Your task to perform on an android device: Open calendar and show me the second week of next month Image 0: 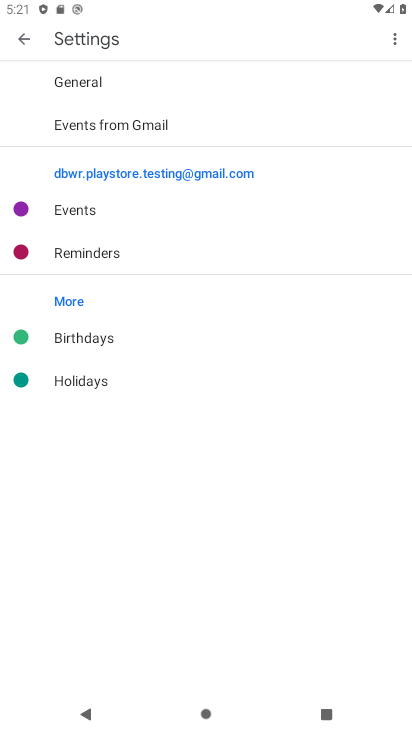
Step 0: press home button
Your task to perform on an android device: Open calendar and show me the second week of next month Image 1: 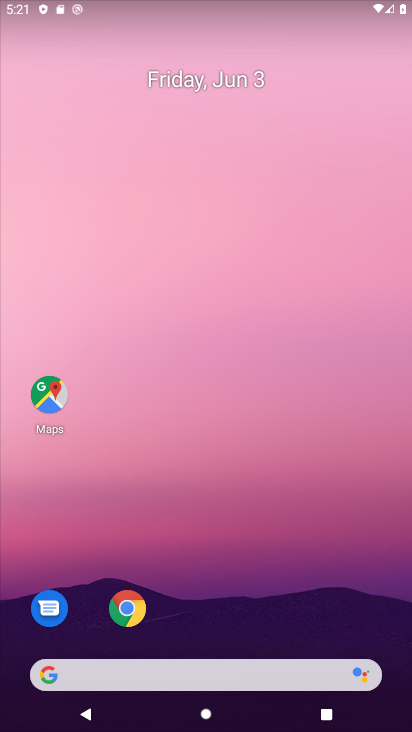
Step 1: drag from (223, 576) to (252, 392)
Your task to perform on an android device: Open calendar and show me the second week of next month Image 2: 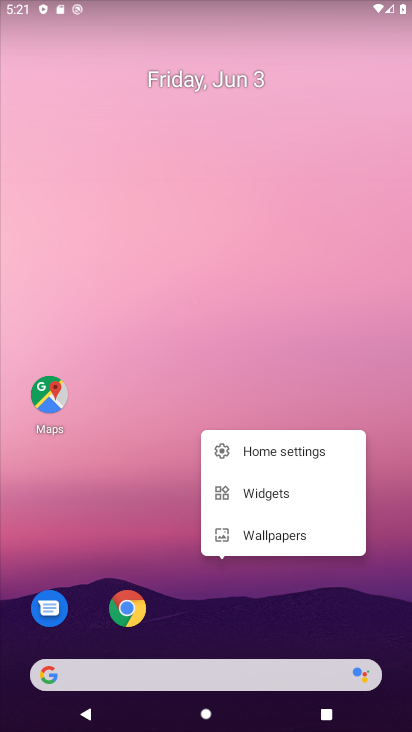
Step 2: click (252, 392)
Your task to perform on an android device: Open calendar and show me the second week of next month Image 3: 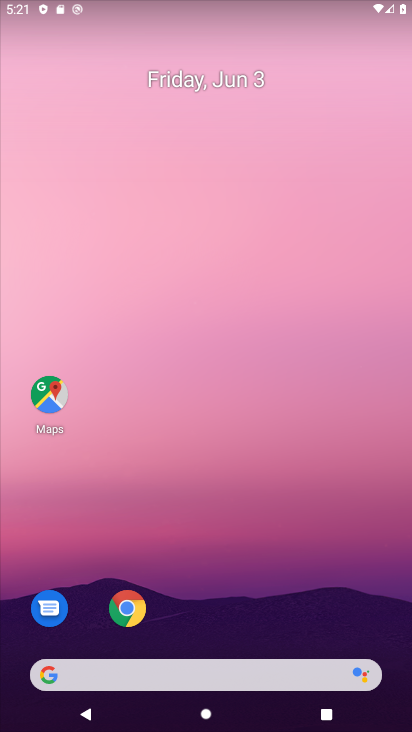
Step 3: click (252, 392)
Your task to perform on an android device: Open calendar and show me the second week of next month Image 4: 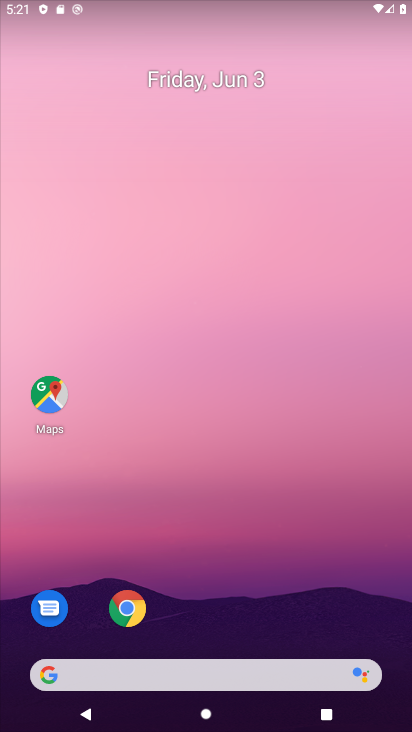
Step 4: drag from (221, 590) to (224, 291)
Your task to perform on an android device: Open calendar and show me the second week of next month Image 5: 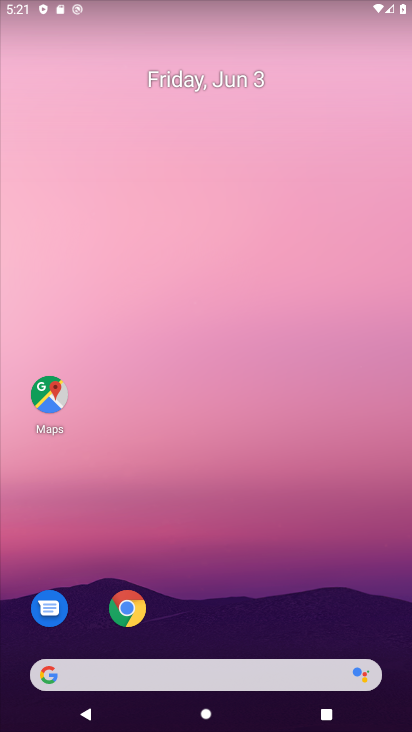
Step 5: drag from (298, 466) to (286, 215)
Your task to perform on an android device: Open calendar and show me the second week of next month Image 6: 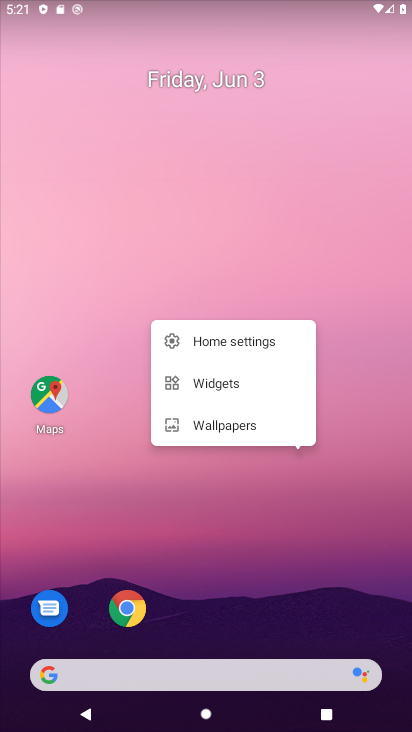
Step 6: click (286, 215)
Your task to perform on an android device: Open calendar and show me the second week of next month Image 7: 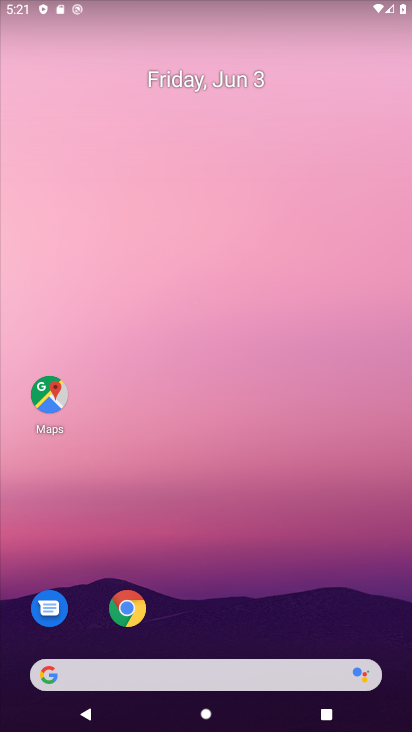
Step 7: drag from (239, 578) to (324, 298)
Your task to perform on an android device: Open calendar and show me the second week of next month Image 8: 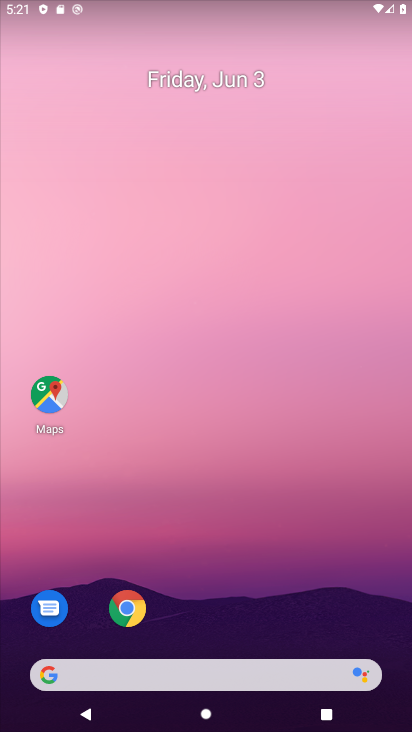
Step 8: drag from (296, 549) to (284, 363)
Your task to perform on an android device: Open calendar and show me the second week of next month Image 9: 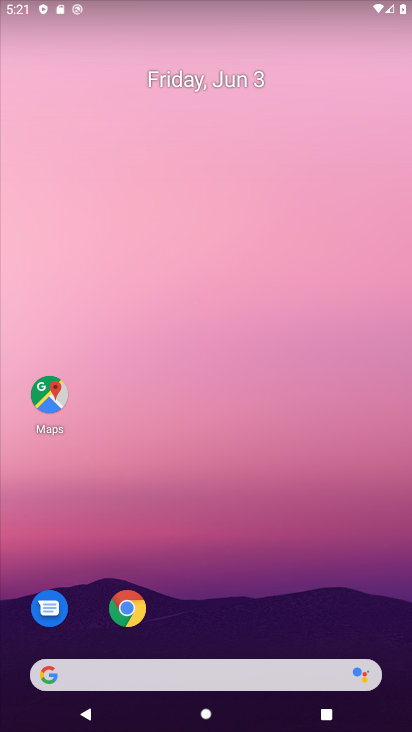
Step 9: drag from (252, 540) to (286, 196)
Your task to perform on an android device: Open calendar and show me the second week of next month Image 10: 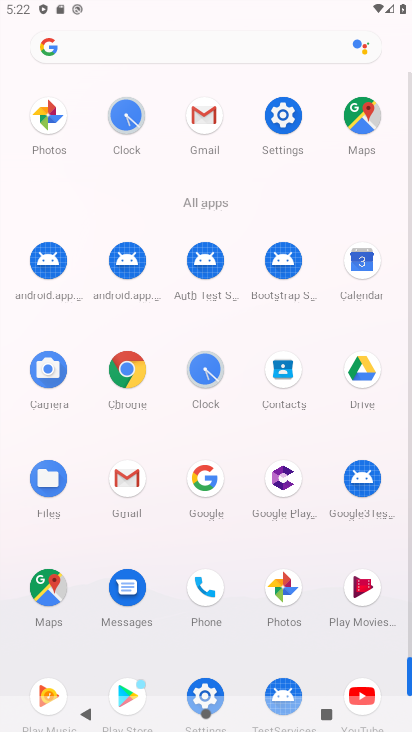
Step 10: click (370, 274)
Your task to perform on an android device: Open calendar and show me the second week of next month Image 11: 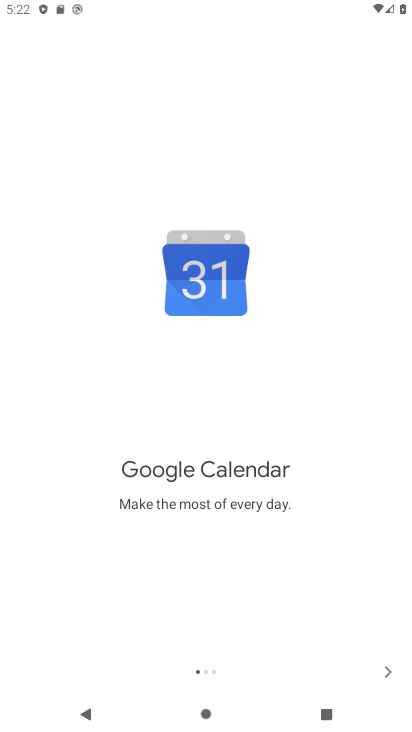
Step 11: click (380, 674)
Your task to perform on an android device: Open calendar and show me the second week of next month Image 12: 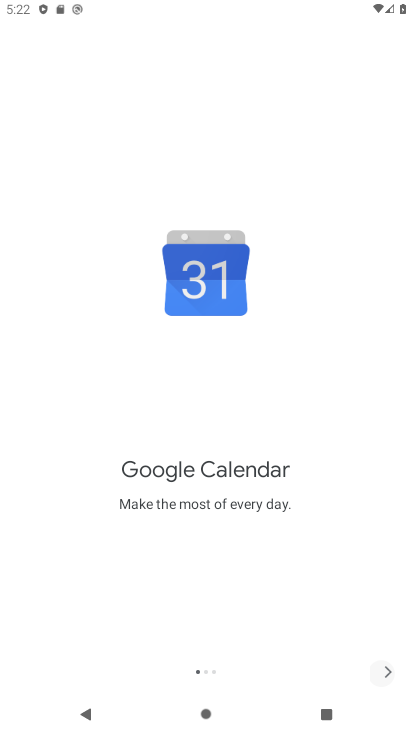
Step 12: click (380, 674)
Your task to perform on an android device: Open calendar and show me the second week of next month Image 13: 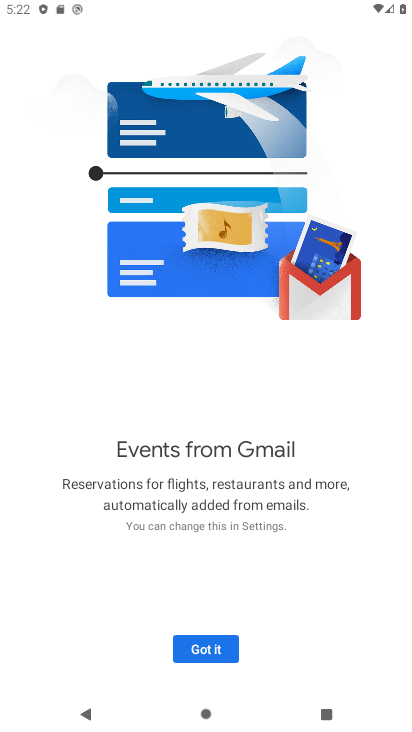
Step 13: click (211, 660)
Your task to perform on an android device: Open calendar and show me the second week of next month Image 14: 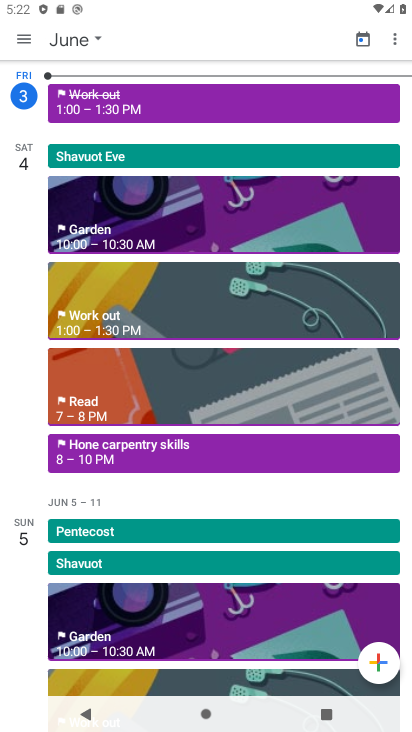
Step 14: click (18, 30)
Your task to perform on an android device: Open calendar and show me the second week of next month Image 15: 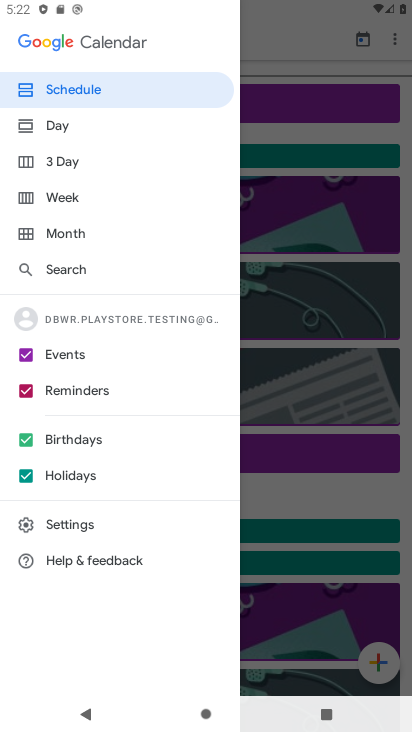
Step 15: click (51, 232)
Your task to perform on an android device: Open calendar and show me the second week of next month Image 16: 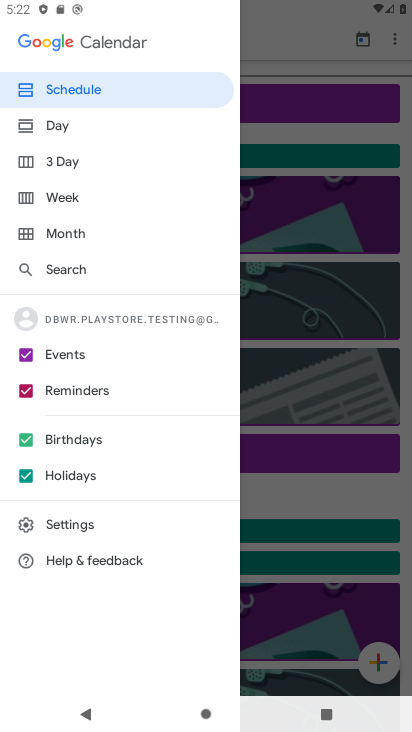
Step 16: click (51, 232)
Your task to perform on an android device: Open calendar and show me the second week of next month Image 17: 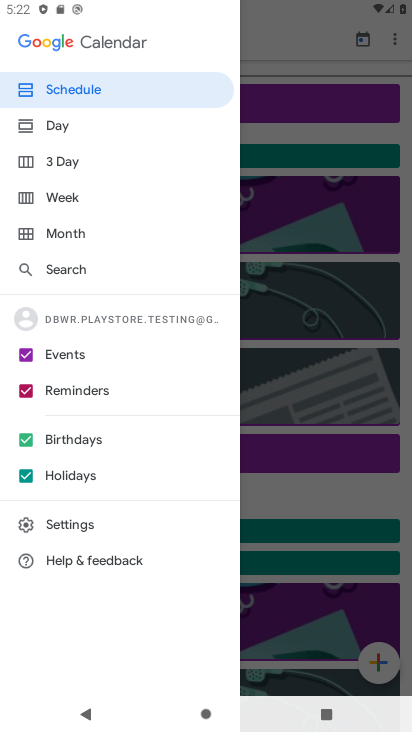
Step 17: click (51, 232)
Your task to perform on an android device: Open calendar and show me the second week of next month Image 18: 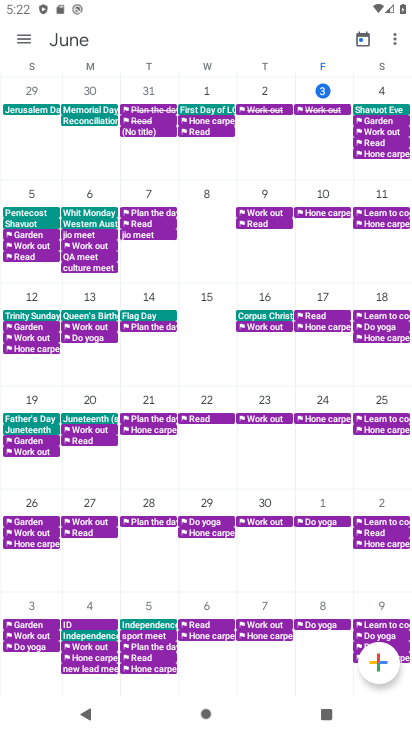
Step 18: task complete